Your task to perform on an android device: Go to settings Image 0: 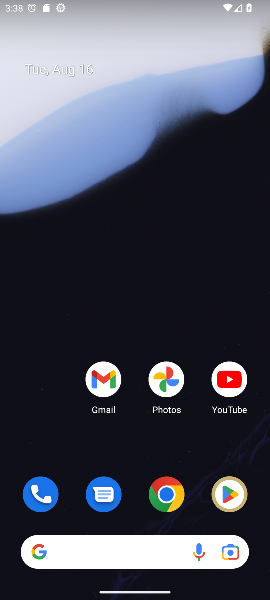
Step 0: drag from (117, 521) to (92, 16)
Your task to perform on an android device: Go to settings Image 1: 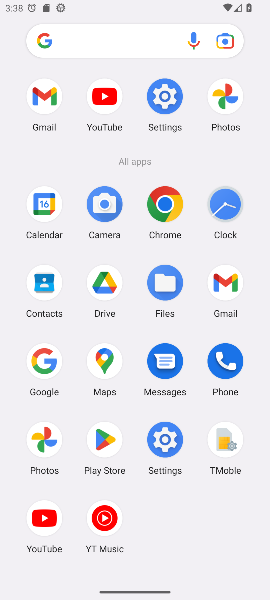
Step 1: click (165, 435)
Your task to perform on an android device: Go to settings Image 2: 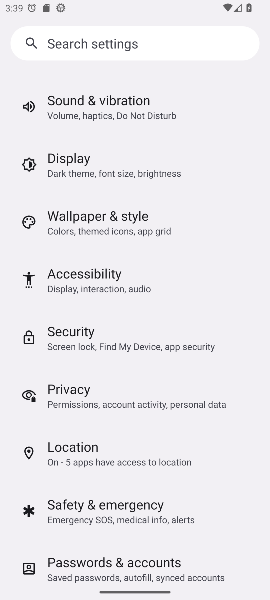
Step 2: task complete